Your task to perform on an android device: Open calendar and show me the first week of next month Image 0: 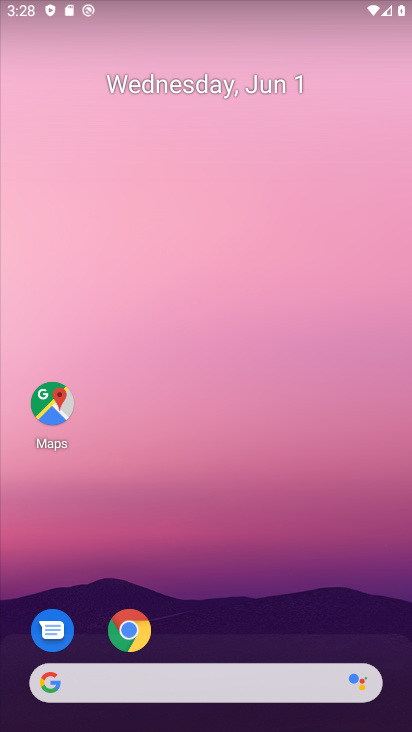
Step 0: drag from (169, 685) to (290, 42)
Your task to perform on an android device: Open calendar and show me the first week of next month Image 1: 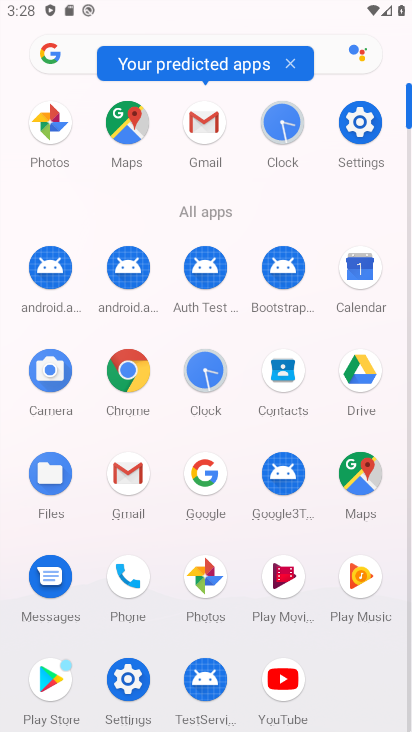
Step 1: click (352, 274)
Your task to perform on an android device: Open calendar and show me the first week of next month Image 2: 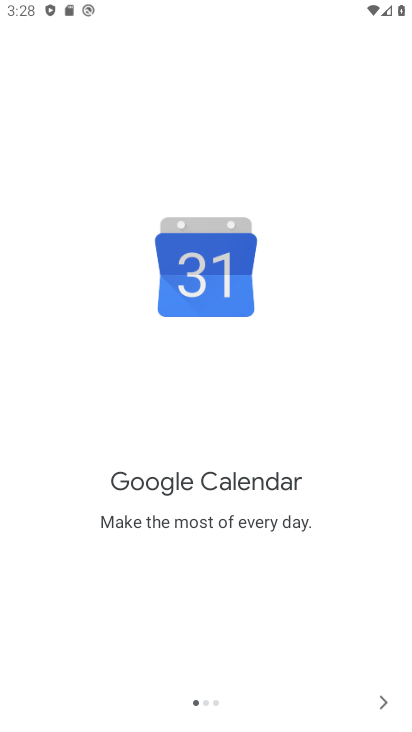
Step 2: click (385, 701)
Your task to perform on an android device: Open calendar and show me the first week of next month Image 3: 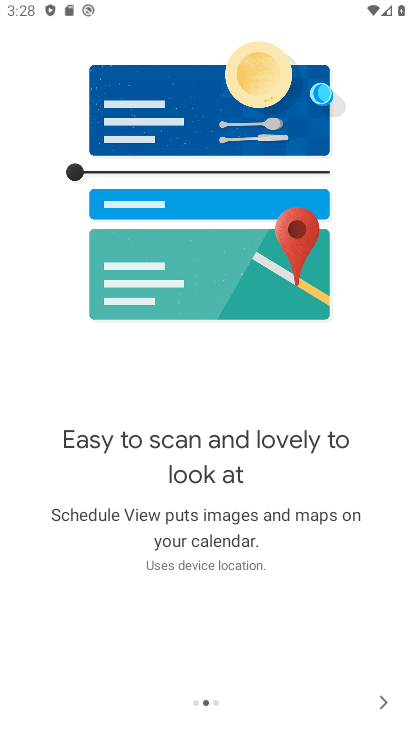
Step 3: click (385, 701)
Your task to perform on an android device: Open calendar and show me the first week of next month Image 4: 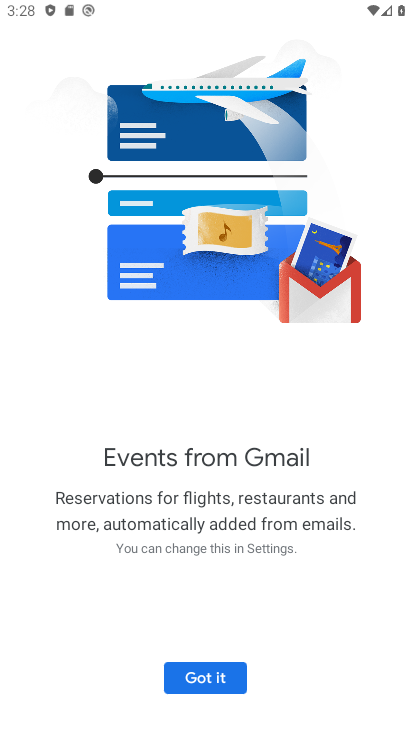
Step 4: click (182, 668)
Your task to perform on an android device: Open calendar and show me the first week of next month Image 5: 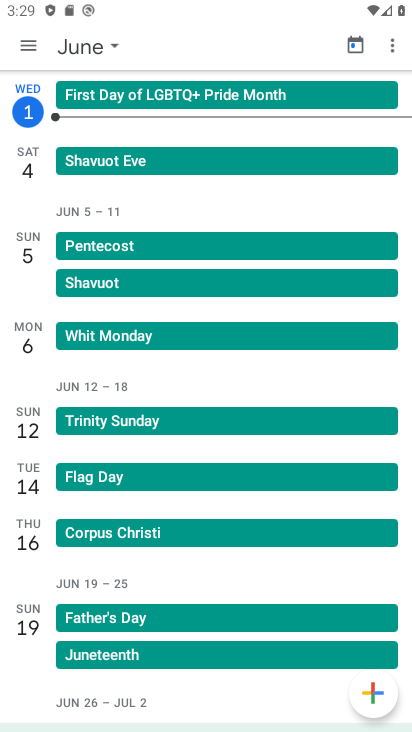
Step 5: click (92, 44)
Your task to perform on an android device: Open calendar and show me the first week of next month Image 6: 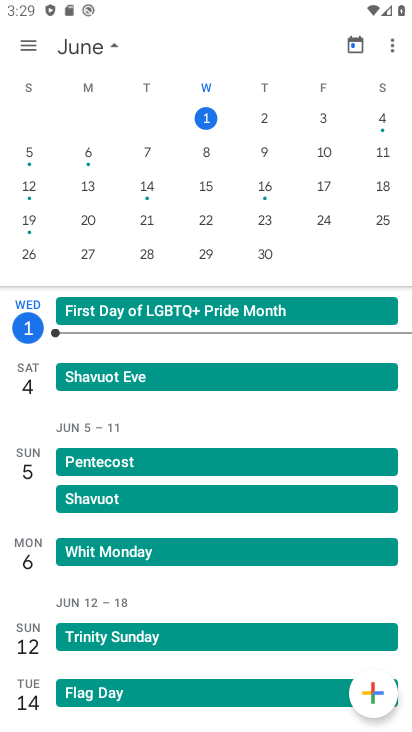
Step 6: drag from (288, 134) to (9, 139)
Your task to perform on an android device: Open calendar and show me the first week of next month Image 7: 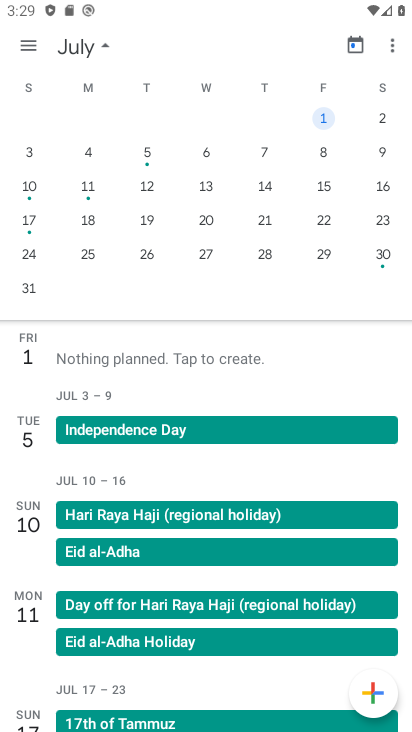
Step 7: click (32, 155)
Your task to perform on an android device: Open calendar and show me the first week of next month Image 8: 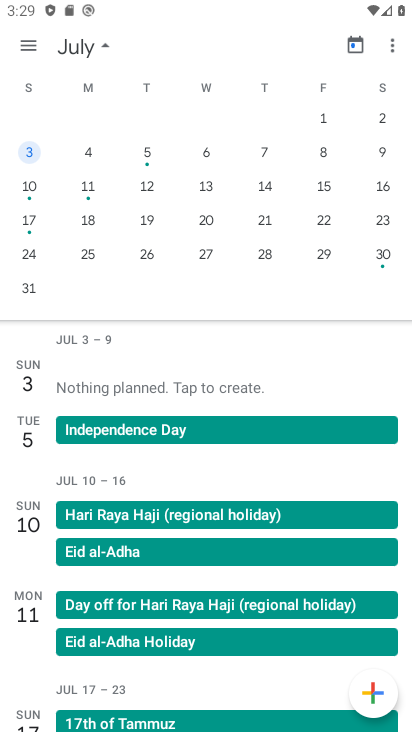
Step 8: click (31, 54)
Your task to perform on an android device: Open calendar and show me the first week of next month Image 9: 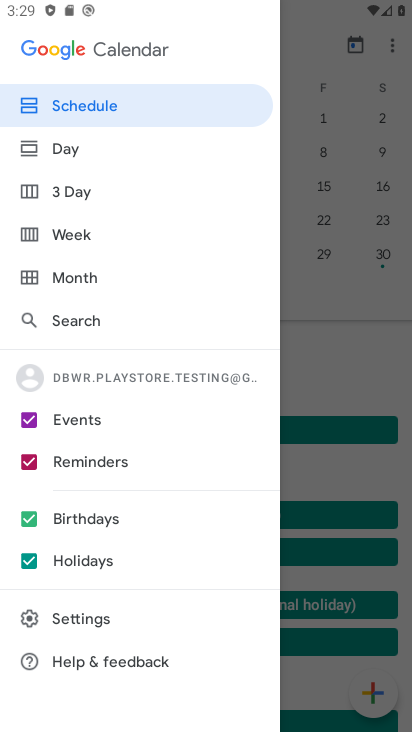
Step 9: click (118, 219)
Your task to perform on an android device: Open calendar and show me the first week of next month Image 10: 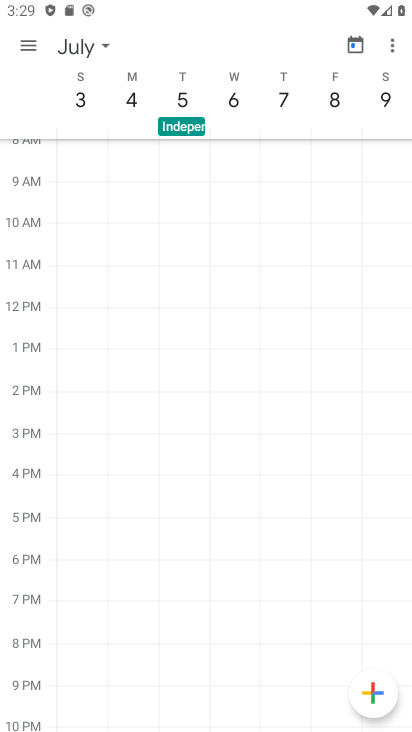
Step 10: task complete